Your task to perform on an android device: Open calendar and show me the second week of next month Image 0: 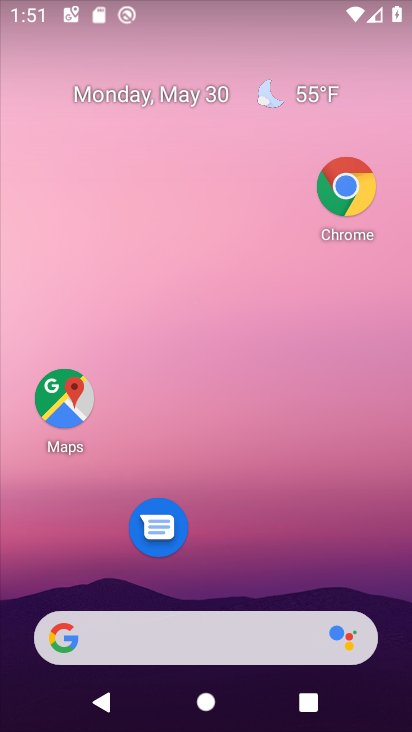
Step 0: drag from (211, 564) to (203, 12)
Your task to perform on an android device: Open calendar and show me the second week of next month Image 1: 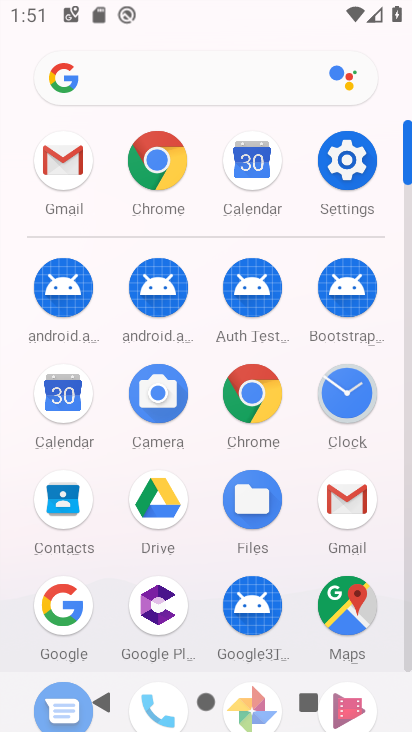
Step 1: click (74, 378)
Your task to perform on an android device: Open calendar and show me the second week of next month Image 2: 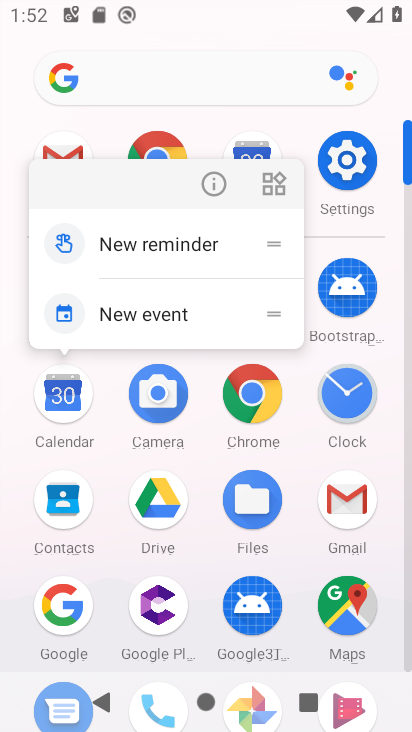
Step 2: click (203, 180)
Your task to perform on an android device: Open calendar and show me the second week of next month Image 3: 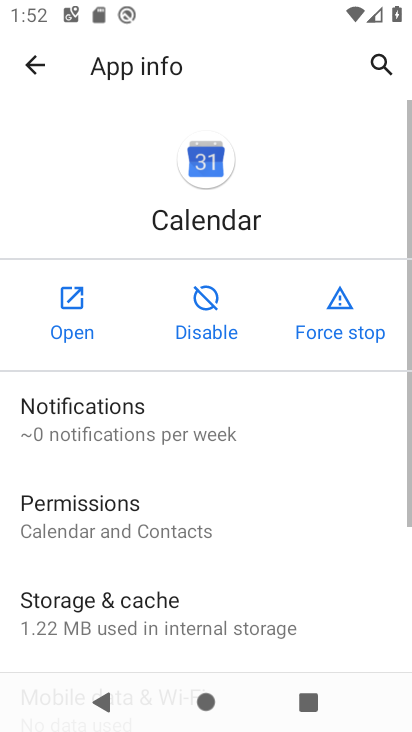
Step 3: click (92, 297)
Your task to perform on an android device: Open calendar and show me the second week of next month Image 4: 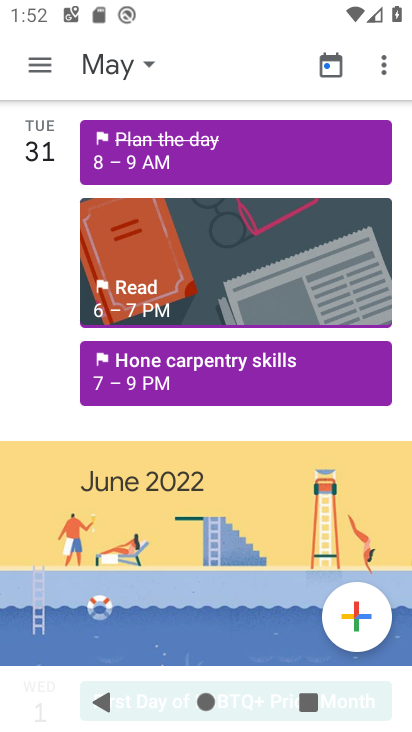
Step 4: drag from (216, 424) to (168, 198)
Your task to perform on an android device: Open calendar and show me the second week of next month Image 5: 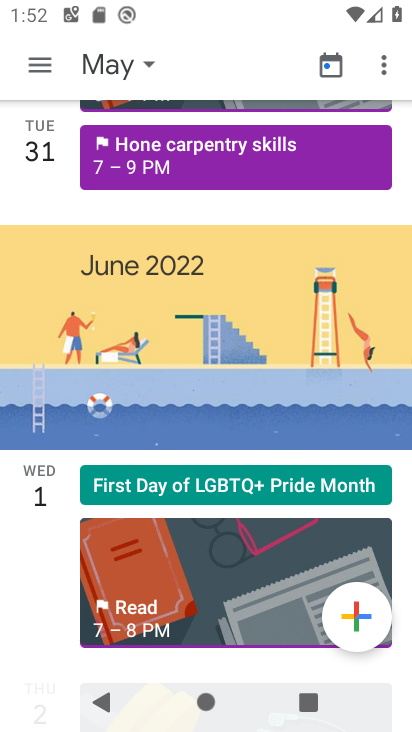
Step 5: drag from (157, 202) to (82, 585)
Your task to perform on an android device: Open calendar and show me the second week of next month Image 6: 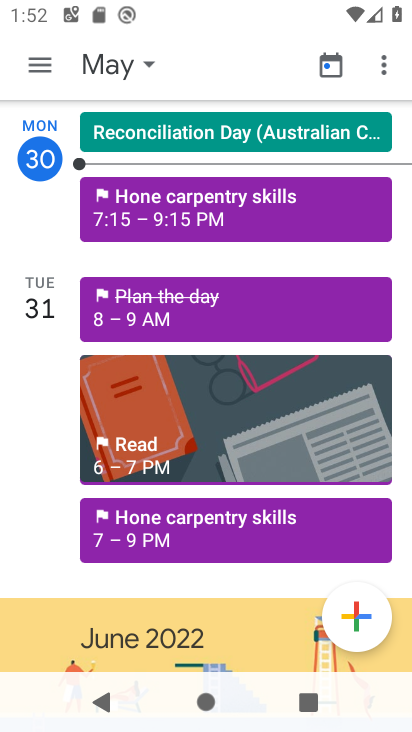
Step 6: drag from (148, 251) to (109, 521)
Your task to perform on an android device: Open calendar and show me the second week of next month Image 7: 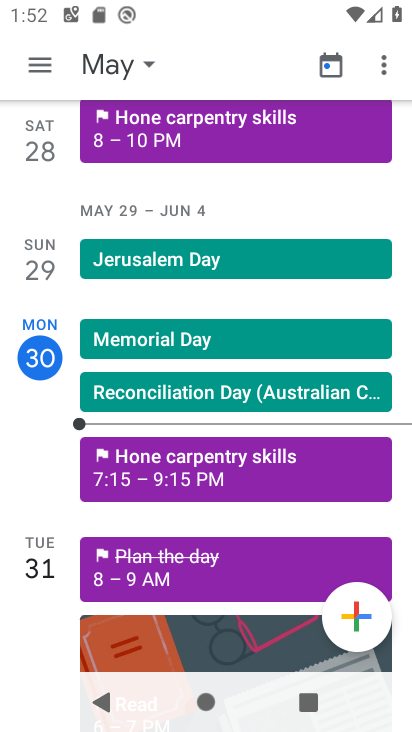
Step 7: click (144, 69)
Your task to perform on an android device: Open calendar and show me the second week of next month Image 8: 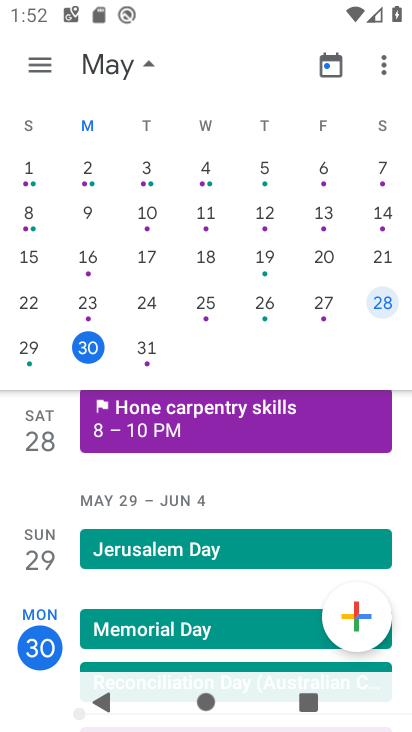
Step 8: drag from (340, 276) to (48, 263)
Your task to perform on an android device: Open calendar and show me the second week of next month Image 9: 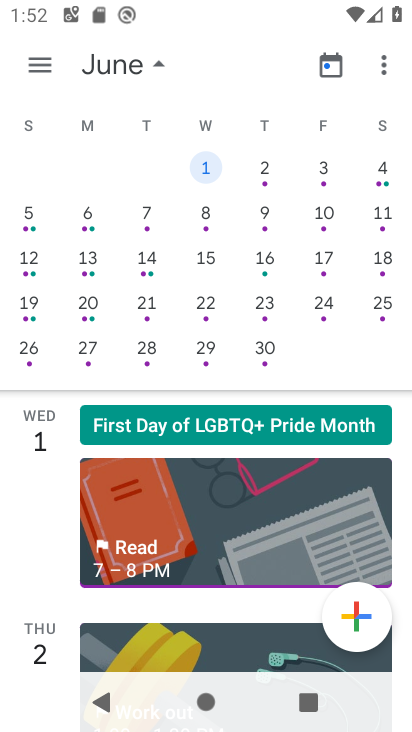
Step 9: click (202, 218)
Your task to perform on an android device: Open calendar and show me the second week of next month Image 10: 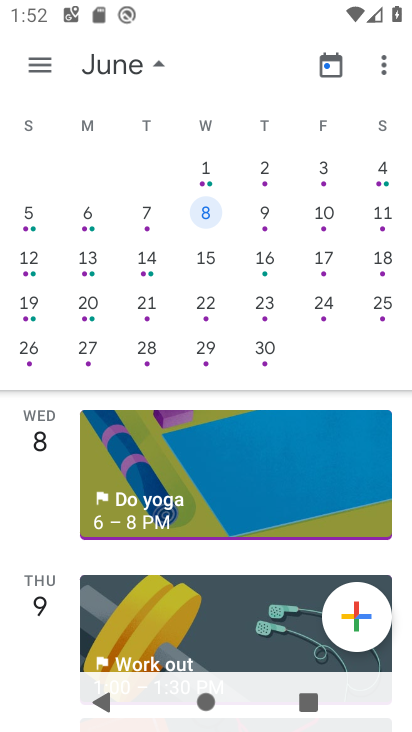
Step 10: task complete